Your task to perform on an android device: Go to Wikipedia Image 0: 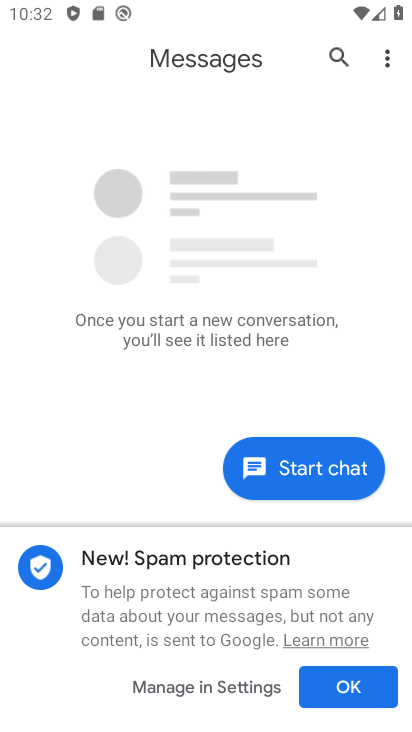
Step 0: press home button
Your task to perform on an android device: Go to Wikipedia Image 1: 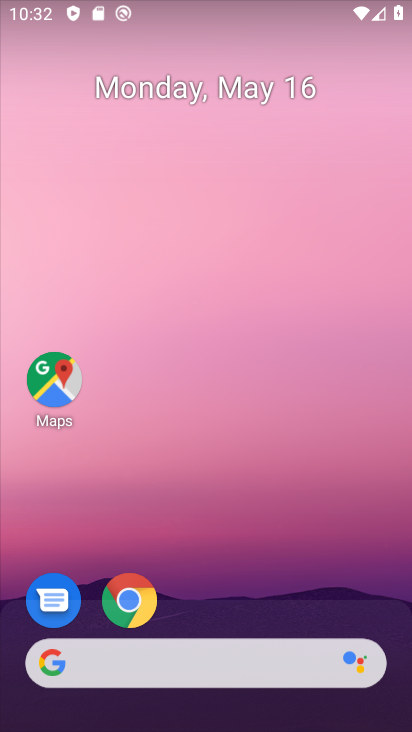
Step 1: click (130, 605)
Your task to perform on an android device: Go to Wikipedia Image 2: 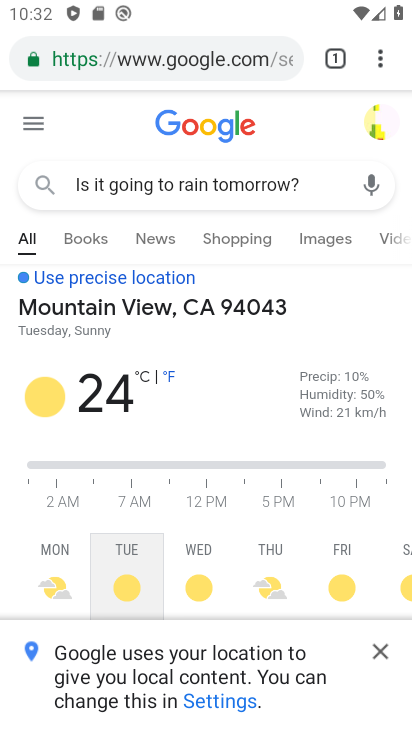
Step 2: click (152, 57)
Your task to perform on an android device: Go to Wikipedia Image 3: 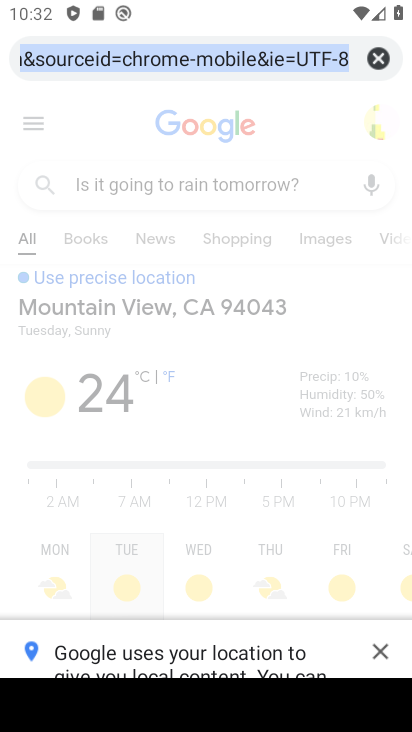
Step 3: type "wikipedia"
Your task to perform on an android device: Go to Wikipedia Image 4: 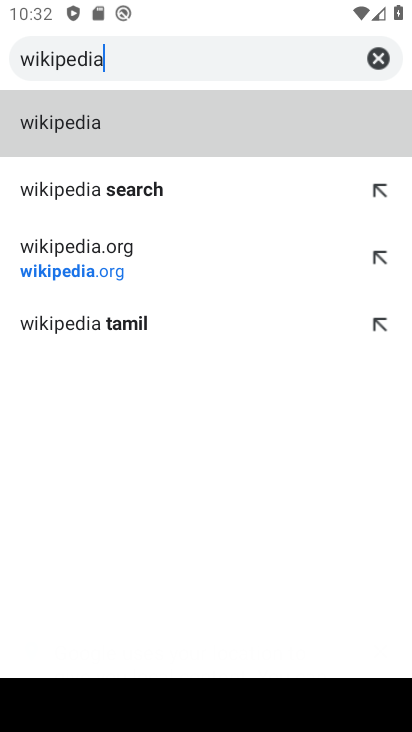
Step 4: click (231, 131)
Your task to perform on an android device: Go to Wikipedia Image 5: 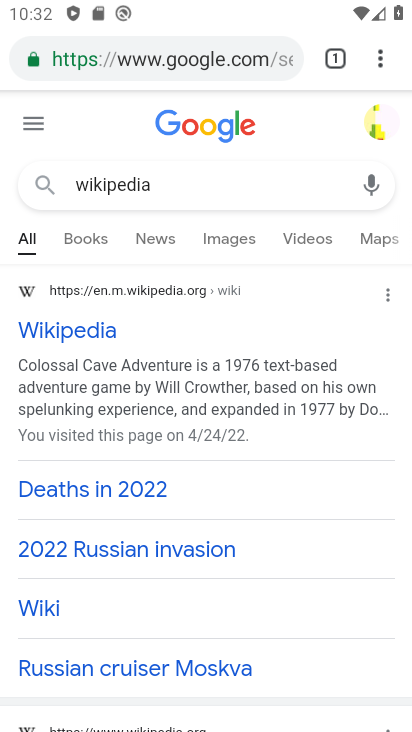
Step 5: click (88, 330)
Your task to perform on an android device: Go to Wikipedia Image 6: 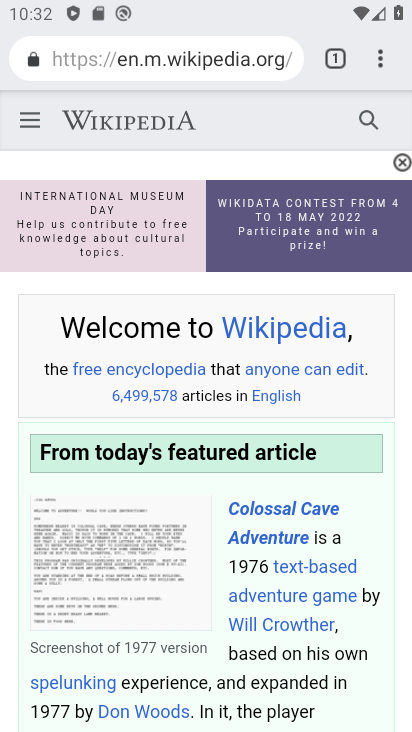
Step 6: task complete